Your task to perform on an android device: turn off picture-in-picture Image 0: 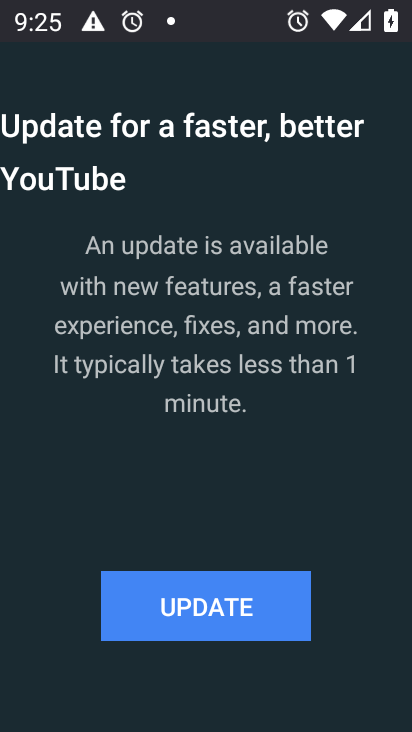
Step 0: press home button
Your task to perform on an android device: turn off picture-in-picture Image 1: 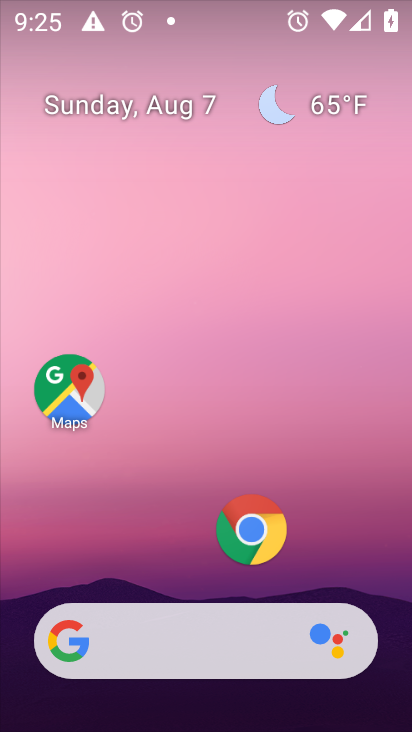
Step 1: click (238, 540)
Your task to perform on an android device: turn off picture-in-picture Image 2: 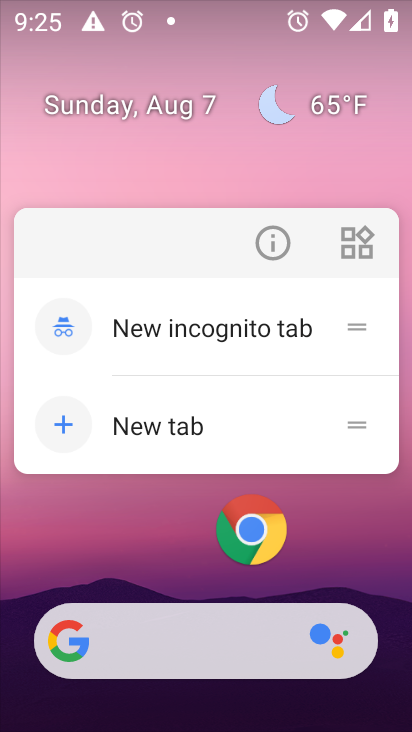
Step 2: click (274, 232)
Your task to perform on an android device: turn off picture-in-picture Image 3: 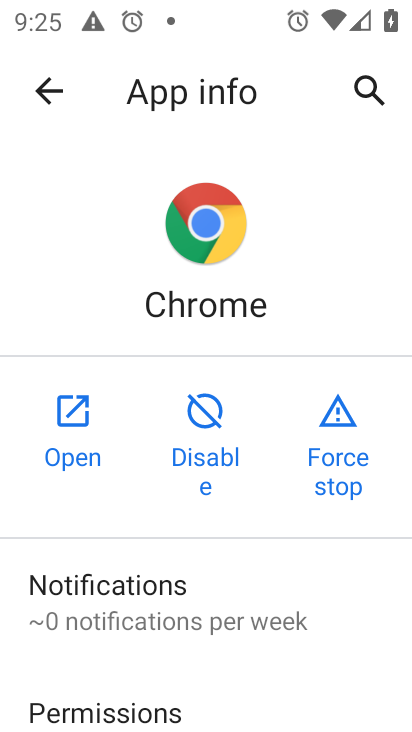
Step 3: drag from (233, 640) to (214, 263)
Your task to perform on an android device: turn off picture-in-picture Image 4: 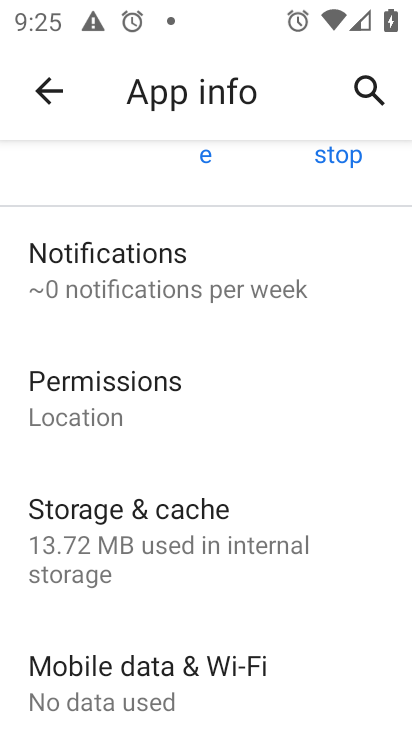
Step 4: drag from (226, 628) to (248, 247)
Your task to perform on an android device: turn off picture-in-picture Image 5: 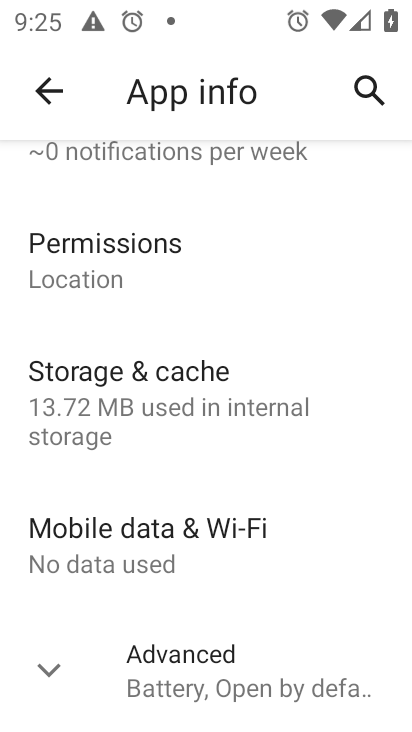
Step 5: click (146, 670)
Your task to perform on an android device: turn off picture-in-picture Image 6: 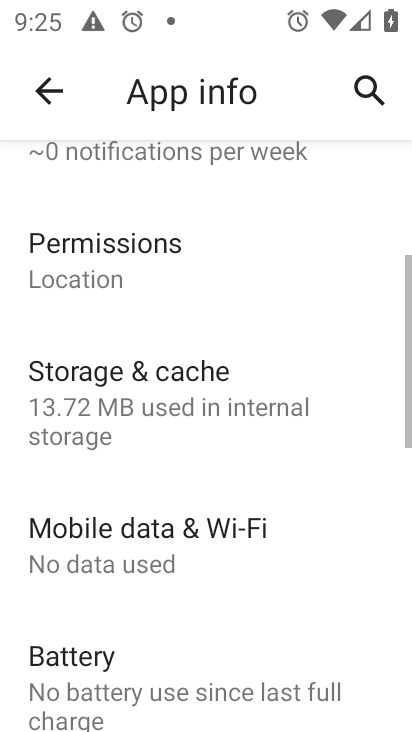
Step 6: drag from (146, 665) to (168, 146)
Your task to perform on an android device: turn off picture-in-picture Image 7: 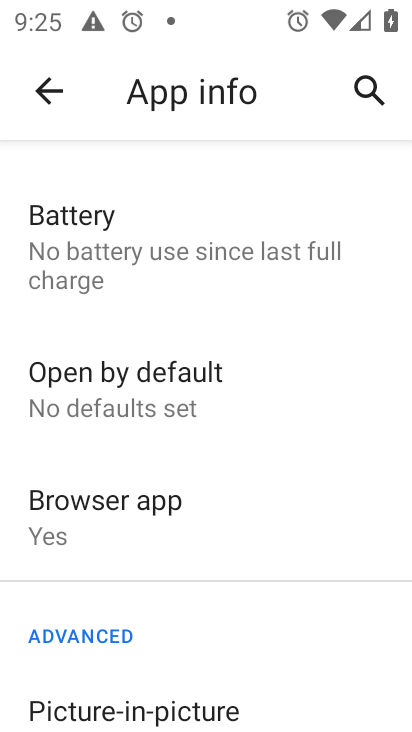
Step 7: drag from (125, 645) to (141, 354)
Your task to perform on an android device: turn off picture-in-picture Image 8: 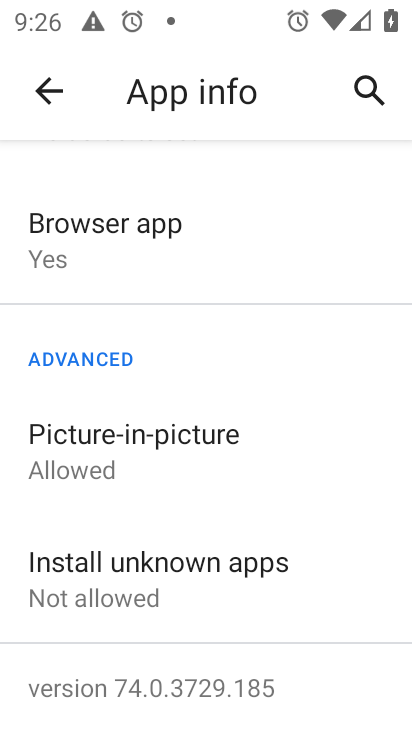
Step 8: click (134, 441)
Your task to perform on an android device: turn off picture-in-picture Image 9: 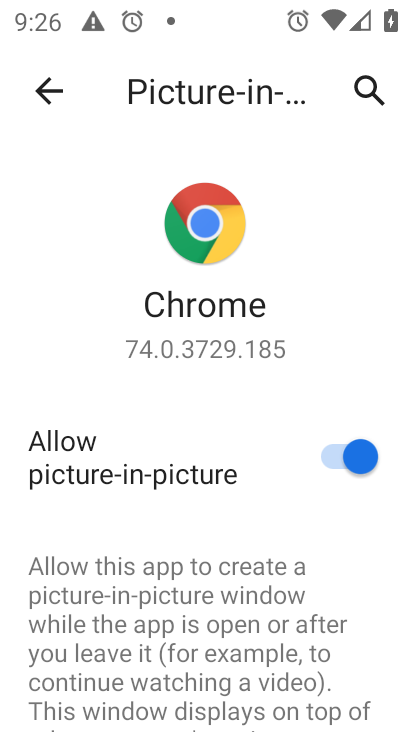
Step 9: click (292, 454)
Your task to perform on an android device: turn off picture-in-picture Image 10: 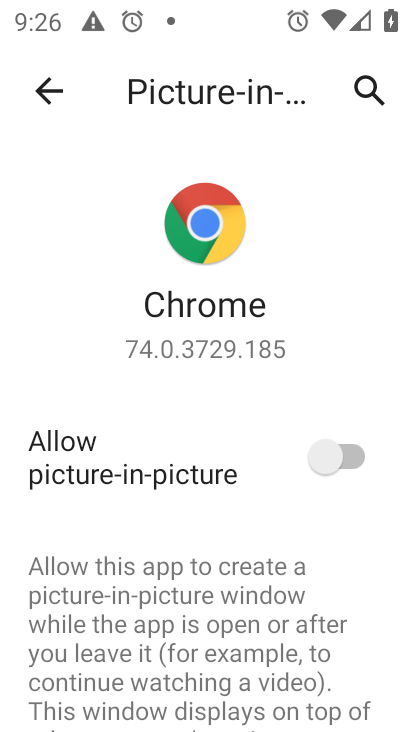
Step 10: task complete